Your task to perform on an android device: Turn on the flashlight Image 0: 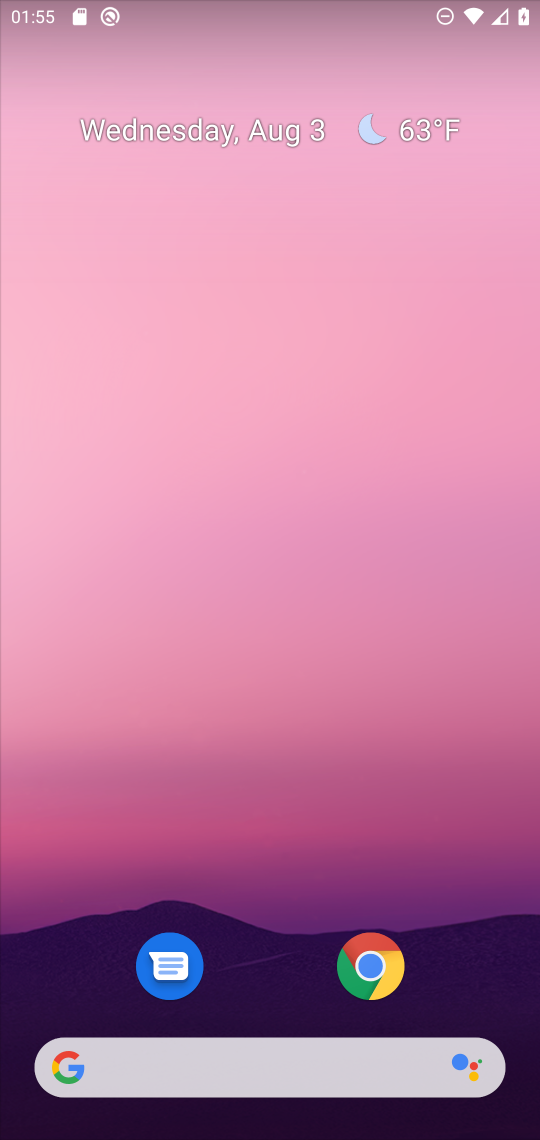
Step 0: drag from (303, 950) to (316, 422)
Your task to perform on an android device: Turn on the flashlight Image 1: 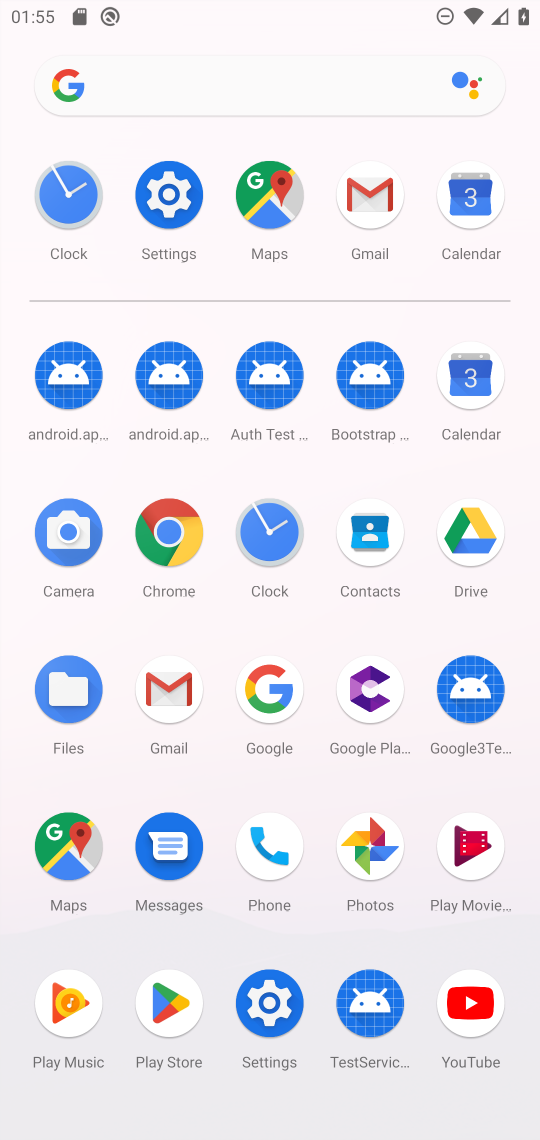
Step 1: click (187, 202)
Your task to perform on an android device: Turn on the flashlight Image 2: 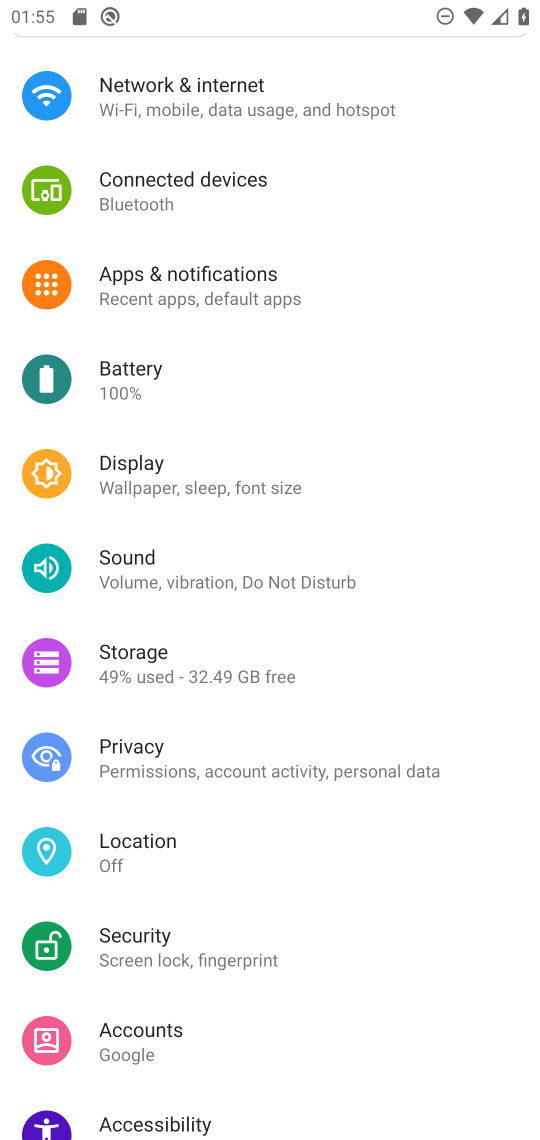
Step 2: task complete